Your task to perform on an android device: Play the last video I watched on Youtube Image 0: 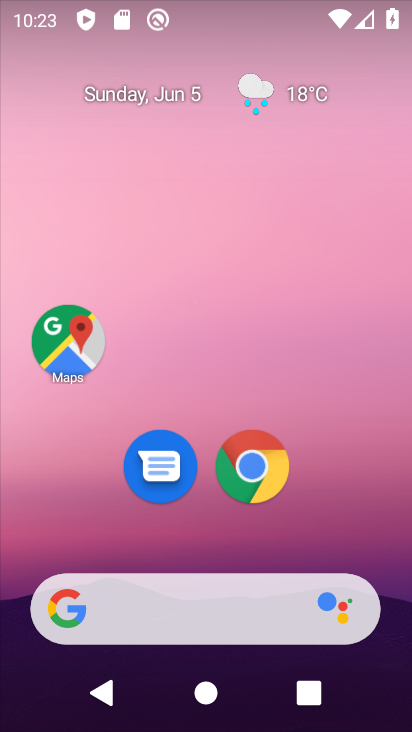
Step 0: drag from (333, 443) to (265, 9)
Your task to perform on an android device: Play the last video I watched on Youtube Image 1: 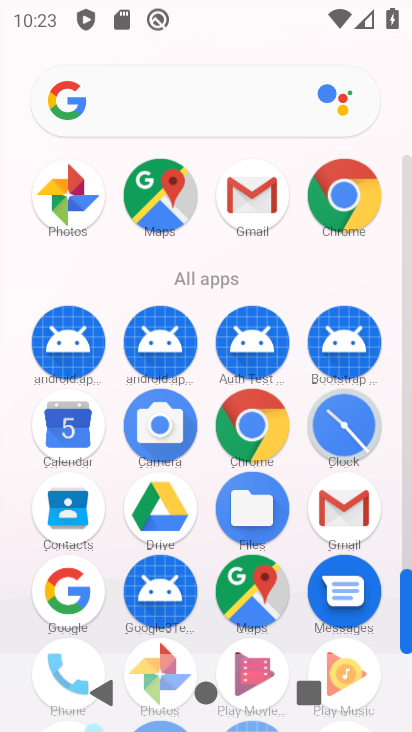
Step 1: drag from (12, 549) to (20, 241)
Your task to perform on an android device: Play the last video I watched on Youtube Image 2: 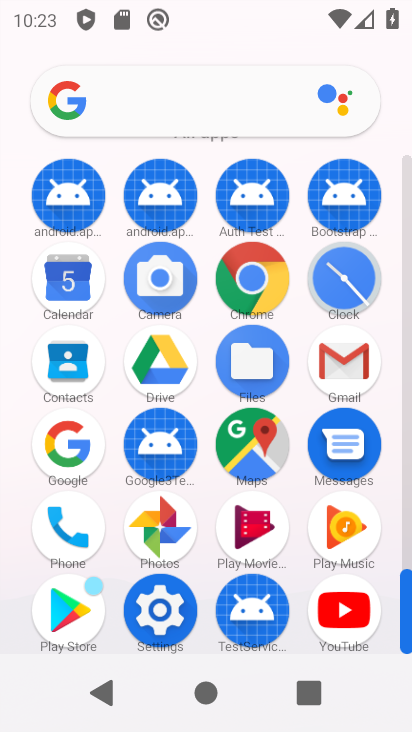
Step 2: click (344, 596)
Your task to perform on an android device: Play the last video I watched on Youtube Image 3: 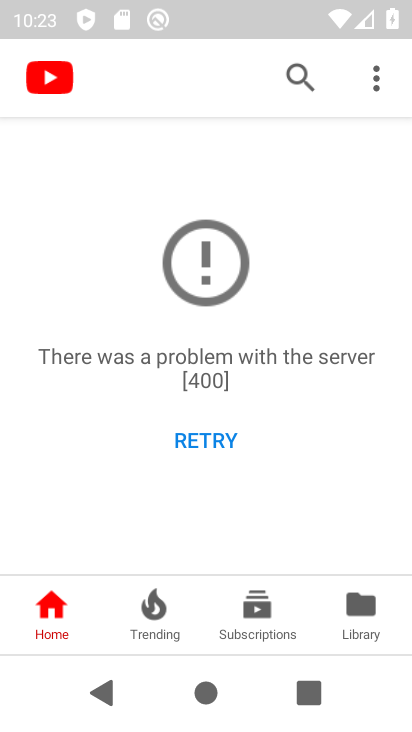
Step 3: click (367, 618)
Your task to perform on an android device: Play the last video I watched on Youtube Image 4: 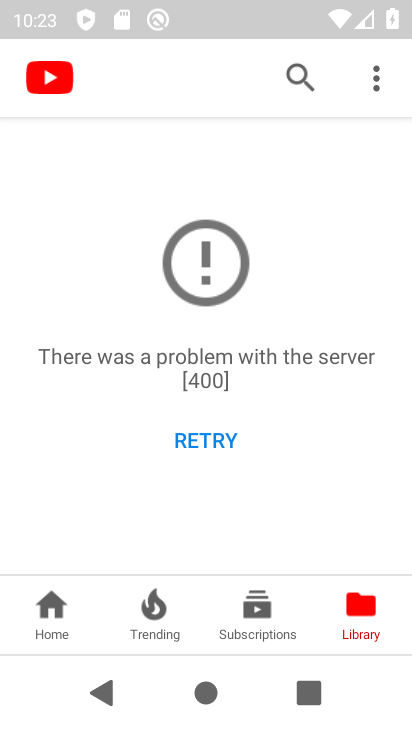
Step 4: click (364, 617)
Your task to perform on an android device: Play the last video I watched on Youtube Image 5: 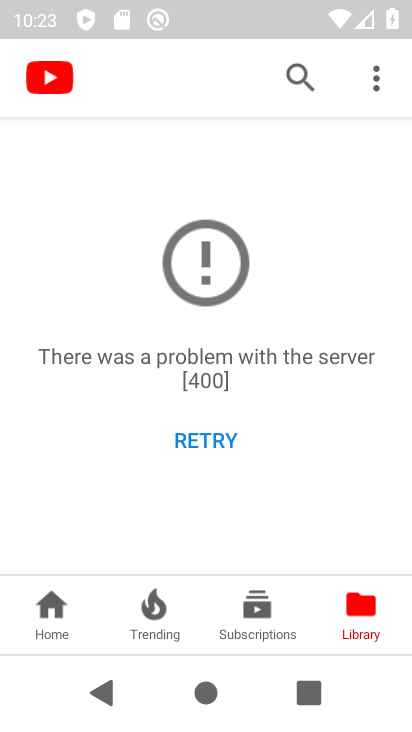
Step 5: click (363, 616)
Your task to perform on an android device: Play the last video I watched on Youtube Image 6: 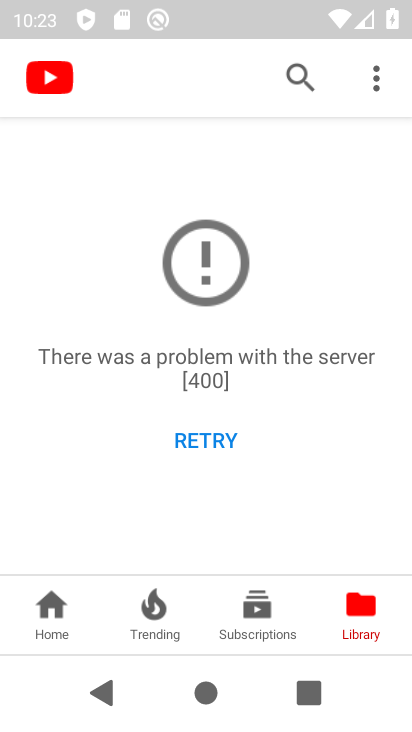
Step 6: click (363, 616)
Your task to perform on an android device: Play the last video I watched on Youtube Image 7: 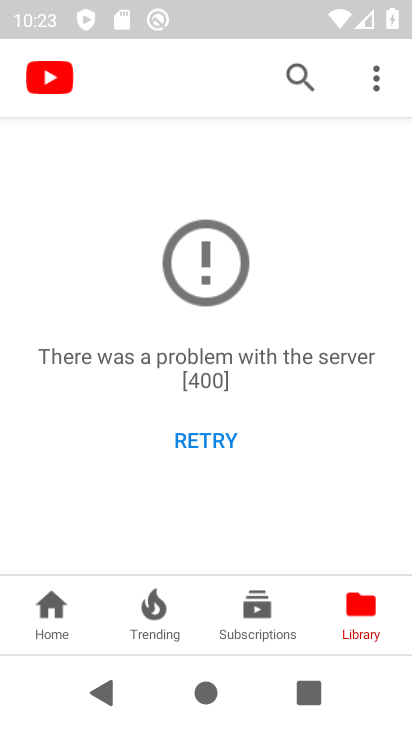
Step 7: click (363, 616)
Your task to perform on an android device: Play the last video I watched on Youtube Image 8: 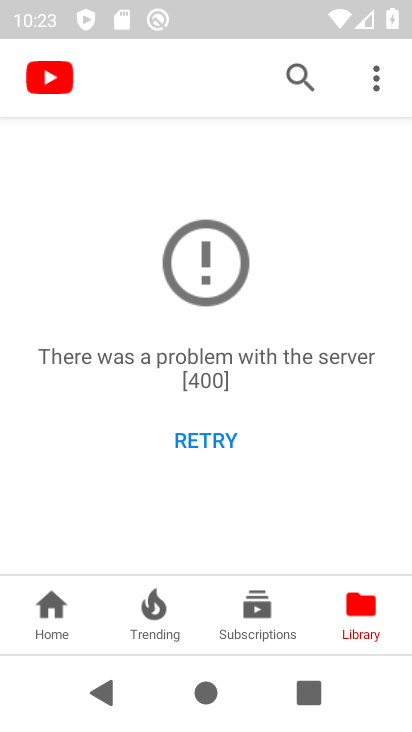
Step 8: task complete